Your task to perform on an android device: remove spam from my inbox in the gmail app Image 0: 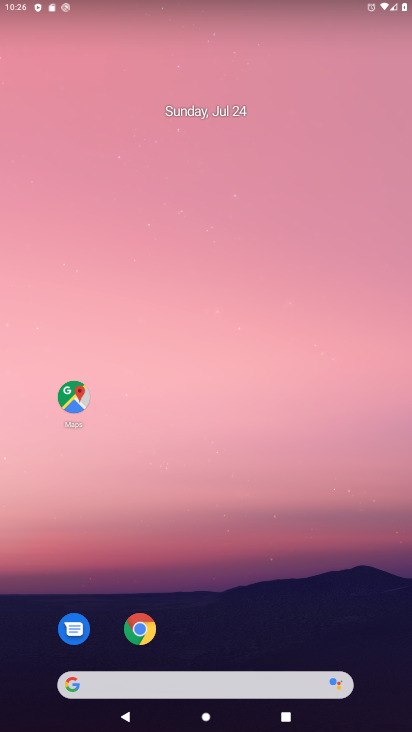
Step 0: drag from (194, 679) to (275, 175)
Your task to perform on an android device: remove spam from my inbox in the gmail app Image 1: 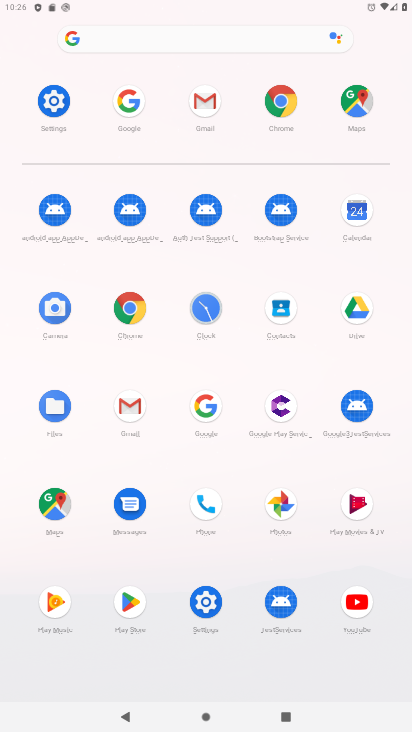
Step 1: click (204, 101)
Your task to perform on an android device: remove spam from my inbox in the gmail app Image 2: 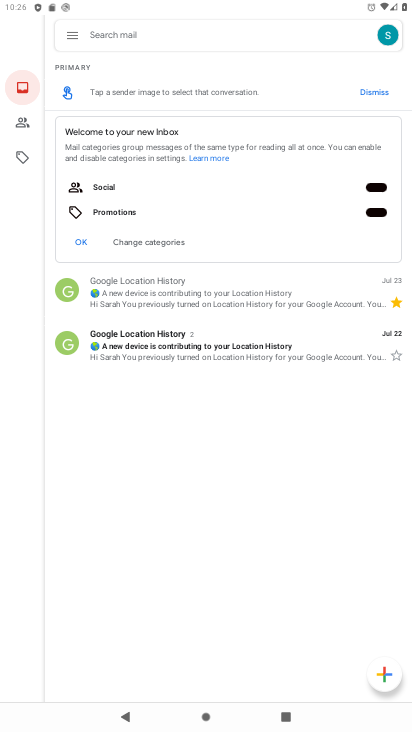
Step 2: click (70, 37)
Your task to perform on an android device: remove spam from my inbox in the gmail app Image 3: 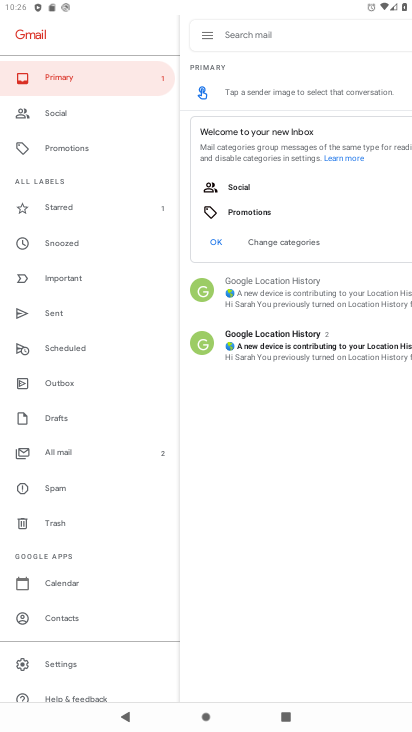
Step 3: click (57, 488)
Your task to perform on an android device: remove spam from my inbox in the gmail app Image 4: 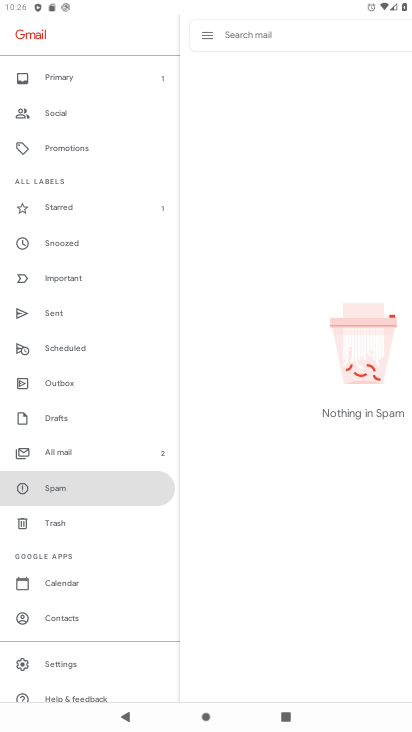
Step 4: task complete